Your task to perform on an android device: Open maps Image 0: 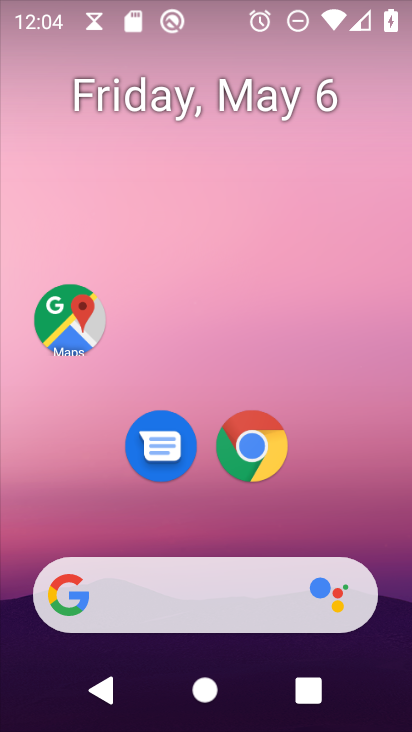
Step 0: drag from (310, 660) to (269, 177)
Your task to perform on an android device: Open maps Image 1: 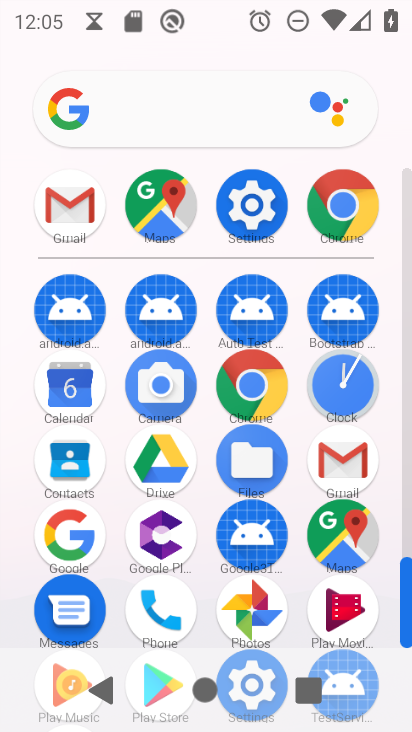
Step 1: click (148, 222)
Your task to perform on an android device: Open maps Image 2: 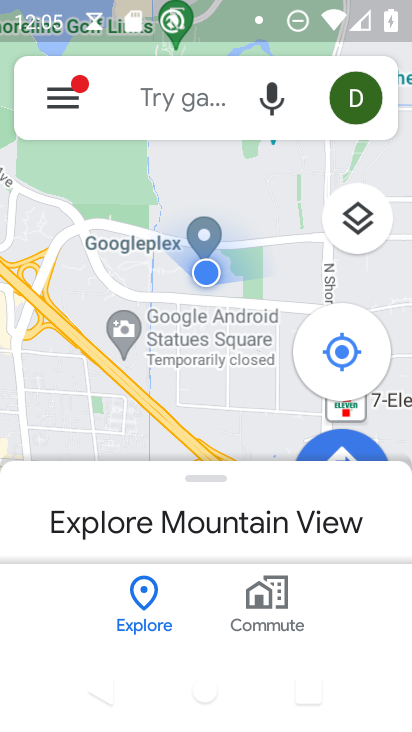
Step 2: click (126, 269)
Your task to perform on an android device: Open maps Image 3: 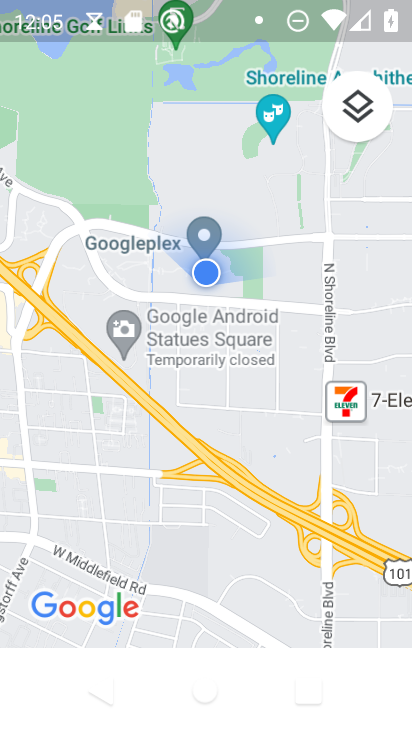
Step 3: task complete